Your task to perform on an android device: Go to sound settings Image 0: 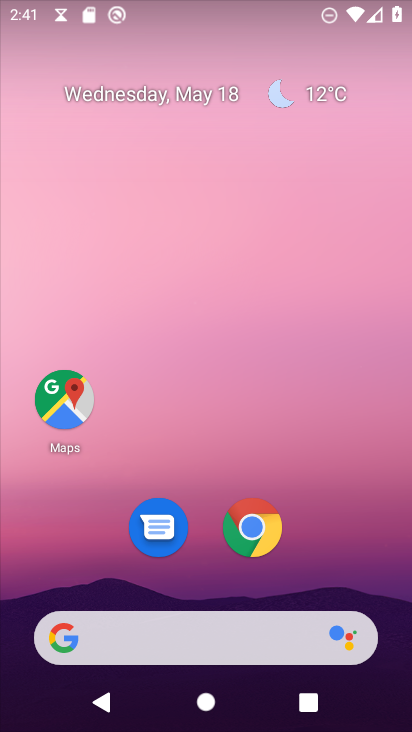
Step 0: drag from (345, 511) to (211, 45)
Your task to perform on an android device: Go to sound settings Image 1: 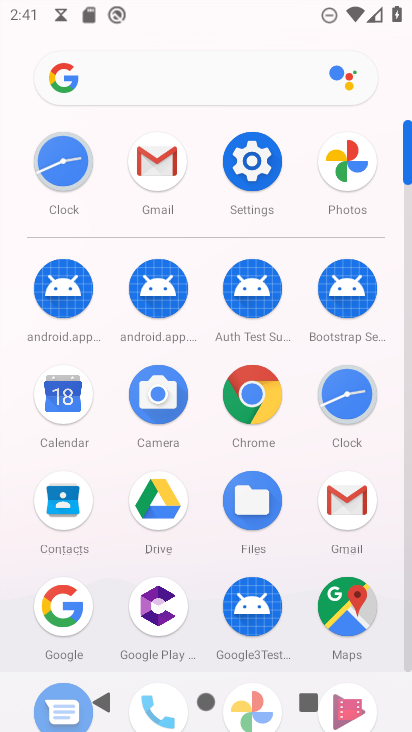
Step 1: click (246, 162)
Your task to perform on an android device: Go to sound settings Image 2: 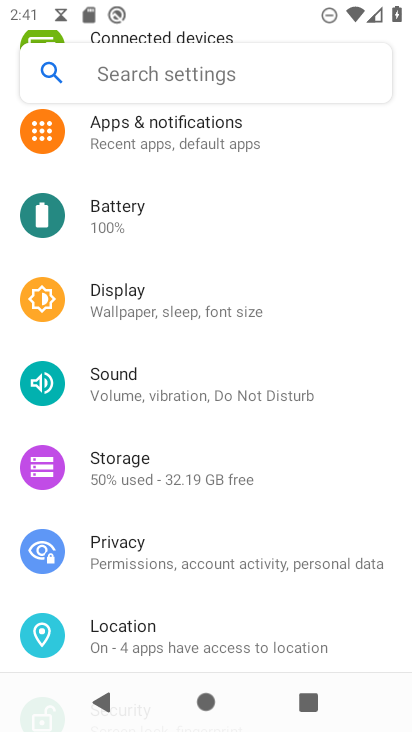
Step 2: click (164, 390)
Your task to perform on an android device: Go to sound settings Image 3: 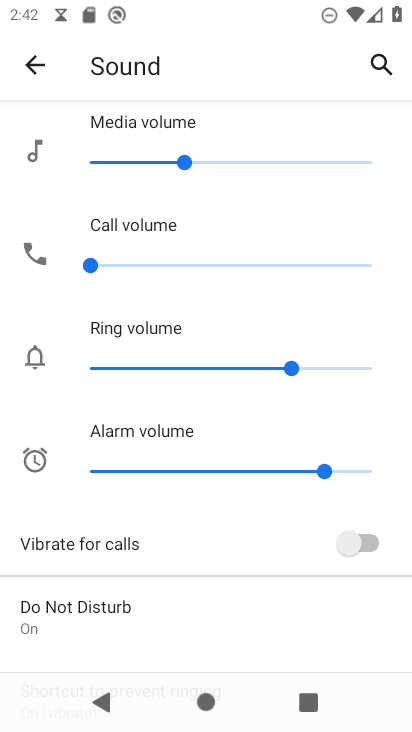
Step 3: task complete